Your task to perform on an android device: Clear all items from cart on walmart. Search for panasonic triple a on walmart, select the first entry, and add it to the cart. Image 0: 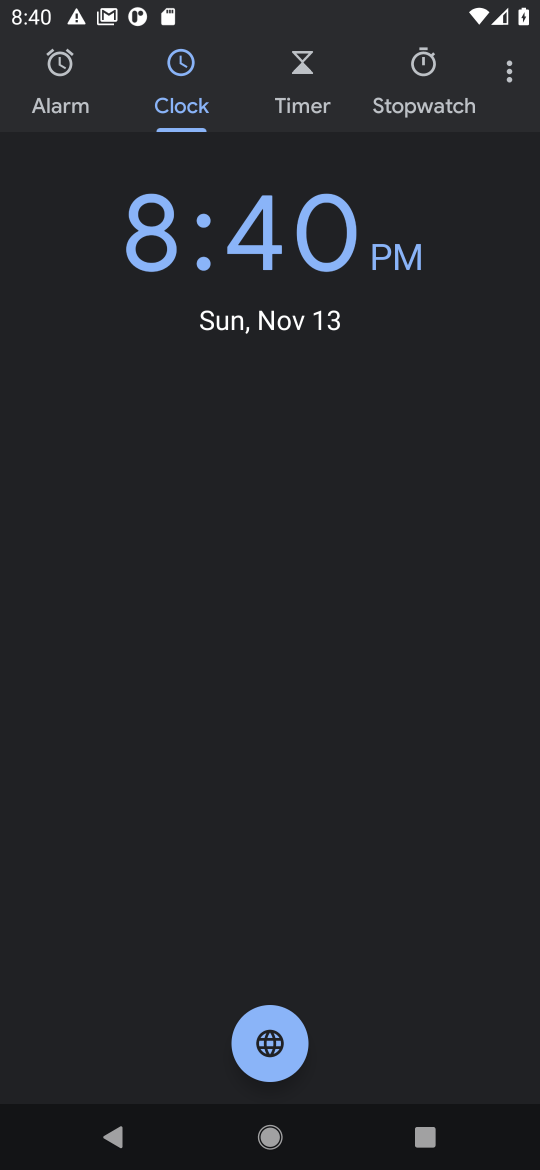
Step 0: press home button
Your task to perform on an android device: Clear all items from cart on walmart. Search for panasonic triple a on walmart, select the first entry, and add it to the cart. Image 1: 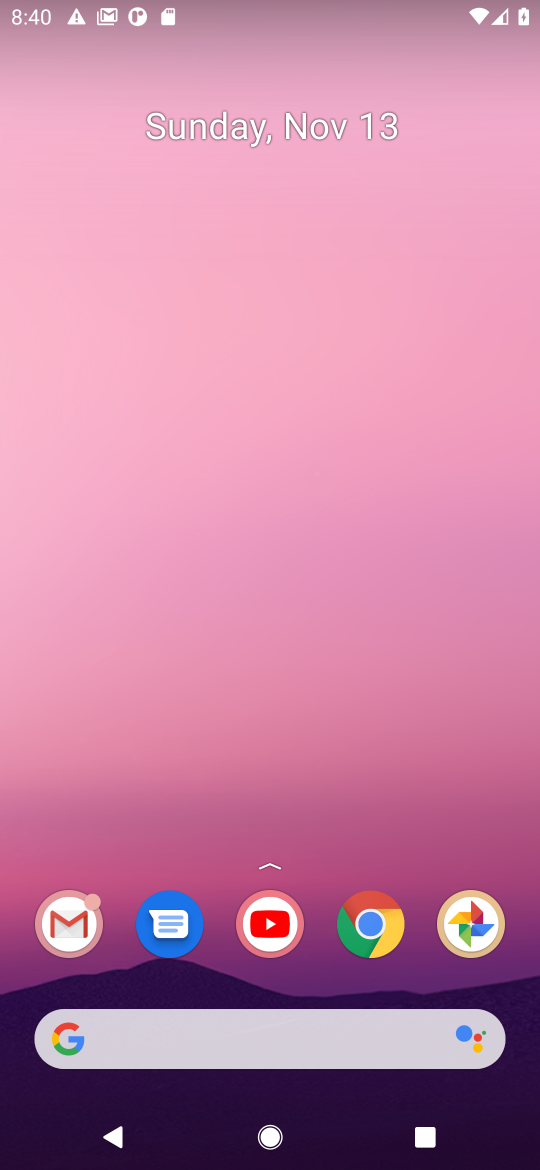
Step 1: click (369, 915)
Your task to perform on an android device: Clear all items from cart on walmart. Search for panasonic triple a on walmart, select the first entry, and add it to the cart. Image 2: 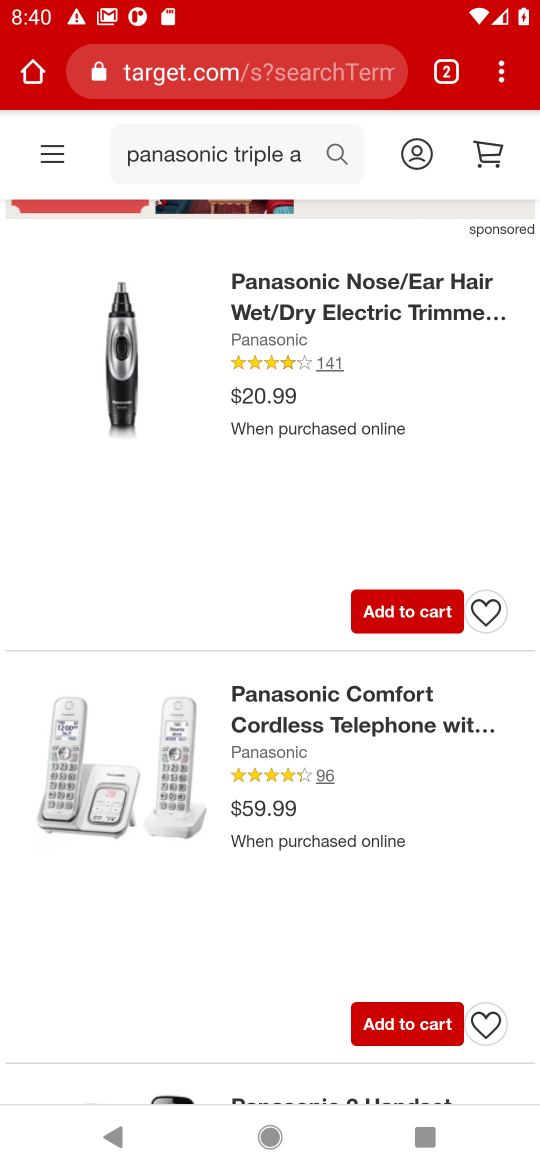
Step 2: click (287, 79)
Your task to perform on an android device: Clear all items from cart on walmart. Search for panasonic triple a on walmart, select the first entry, and add it to the cart. Image 3: 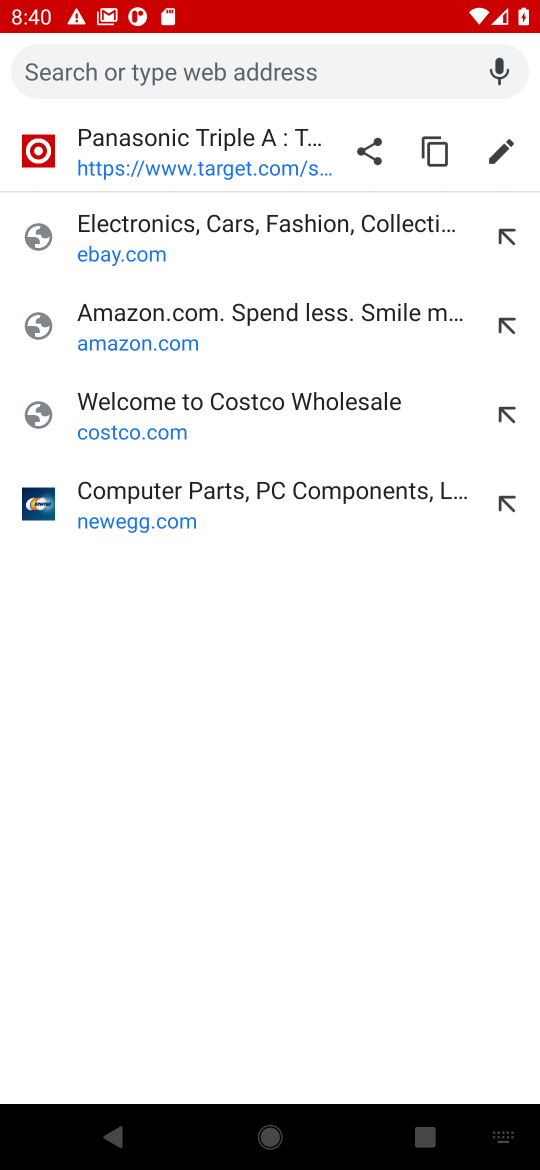
Step 3: type "walmart.com"
Your task to perform on an android device: Clear all items from cart on walmart. Search for panasonic triple a on walmart, select the first entry, and add it to the cart. Image 4: 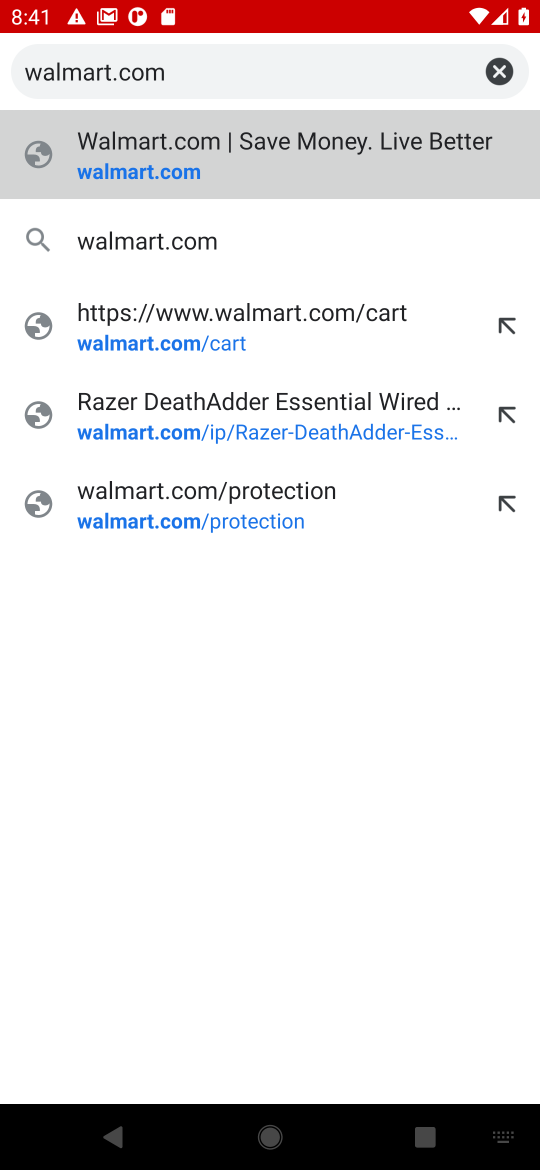
Step 4: click (120, 179)
Your task to perform on an android device: Clear all items from cart on walmart. Search for panasonic triple a on walmart, select the first entry, and add it to the cart. Image 5: 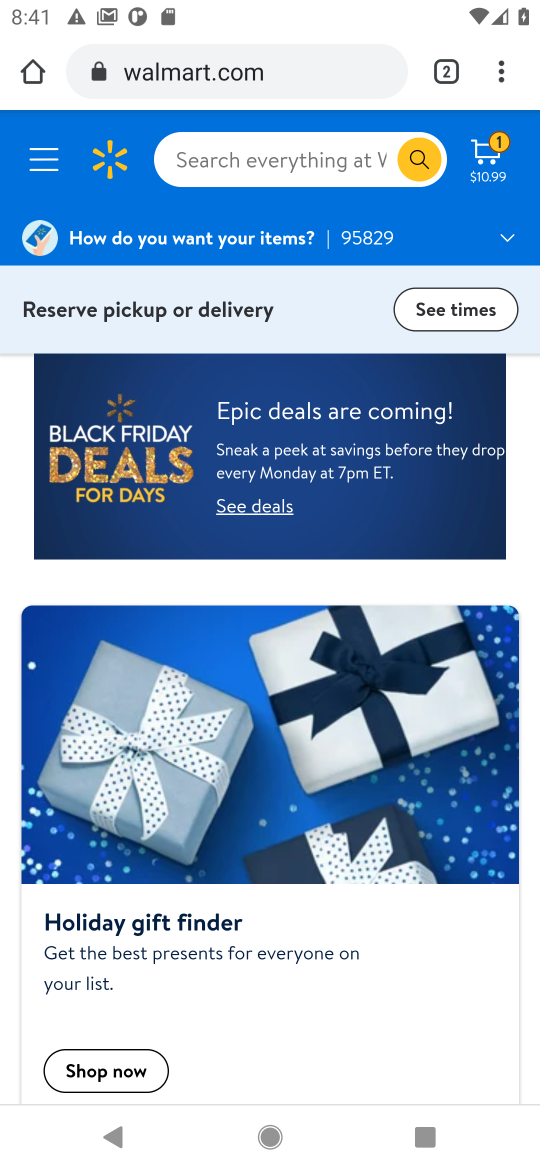
Step 5: click (484, 151)
Your task to perform on an android device: Clear all items from cart on walmart. Search for panasonic triple a on walmart, select the first entry, and add it to the cart. Image 6: 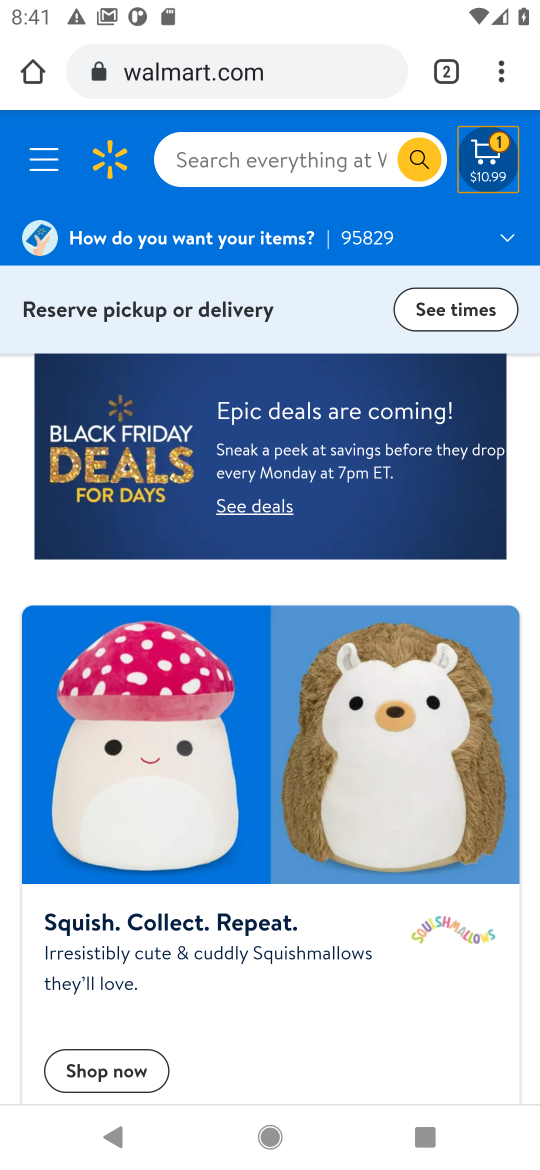
Step 6: click (492, 160)
Your task to perform on an android device: Clear all items from cart on walmart. Search for panasonic triple a on walmart, select the first entry, and add it to the cart. Image 7: 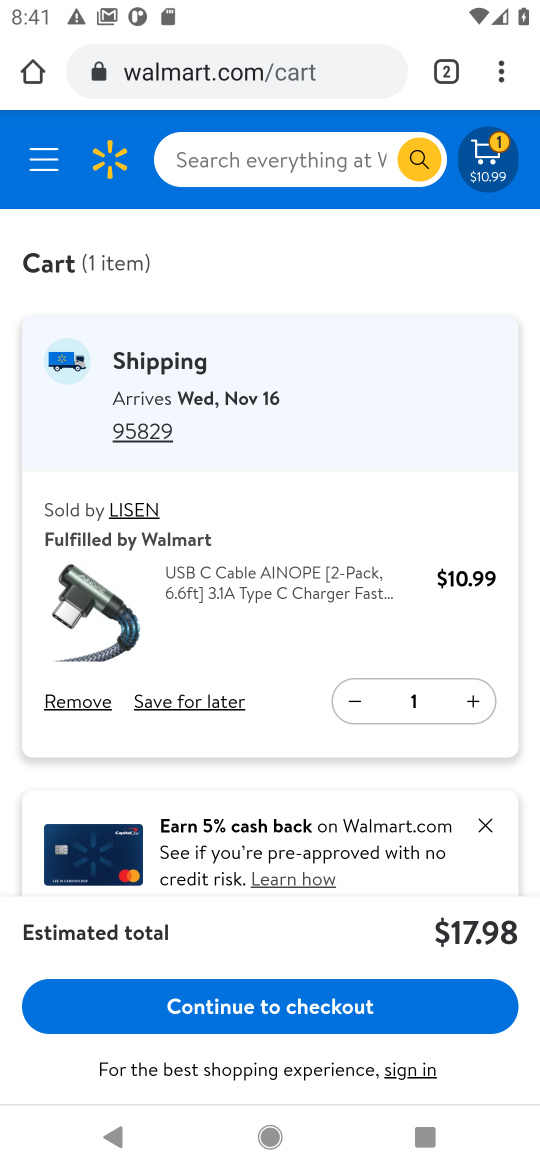
Step 7: click (75, 701)
Your task to perform on an android device: Clear all items from cart on walmart. Search for panasonic triple a on walmart, select the first entry, and add it to the cart. Image 8: 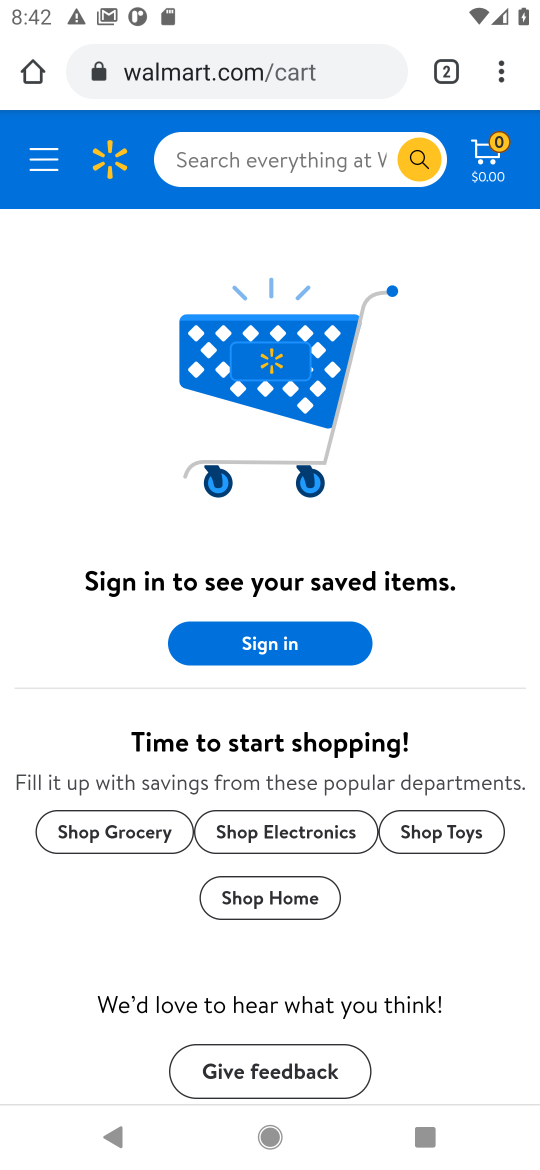
Step 8: click (246, 156)
Your task to perform on an android device: Clear all items from cart on walmart. Search for panasonic triple a on walmart, select the first entry, and add it to the cart. Image 9: 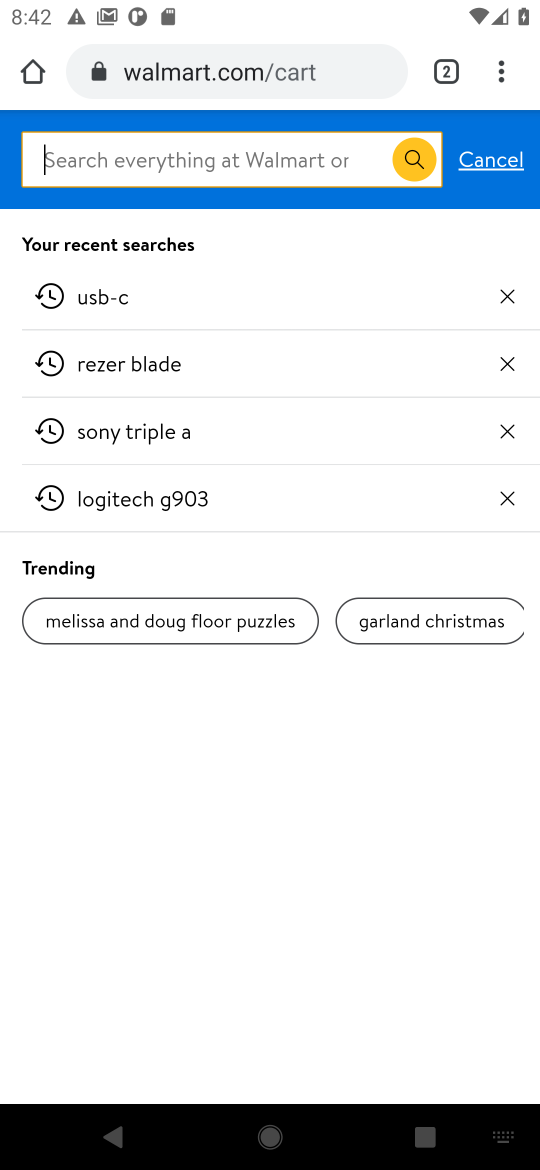
Step 9: type "panasonic triple a"
Your task to perform on an android device: Clear all items from cart on walmart. Search for panasonic triple a on walmart, select the first entry, and add it to the cart. Image 10: 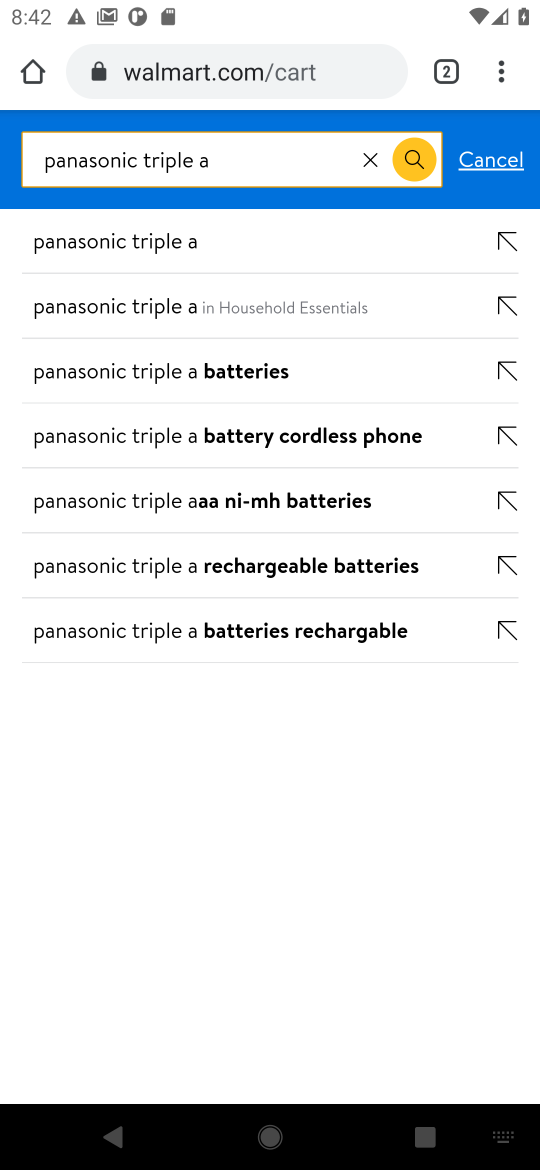
Step 10: click (58, 243)
Your task to perform on an android device: Clear all items from cart on walmart. Search for panasonic triple a on walmart, select the first entry, and add it to the cart. Image 11: 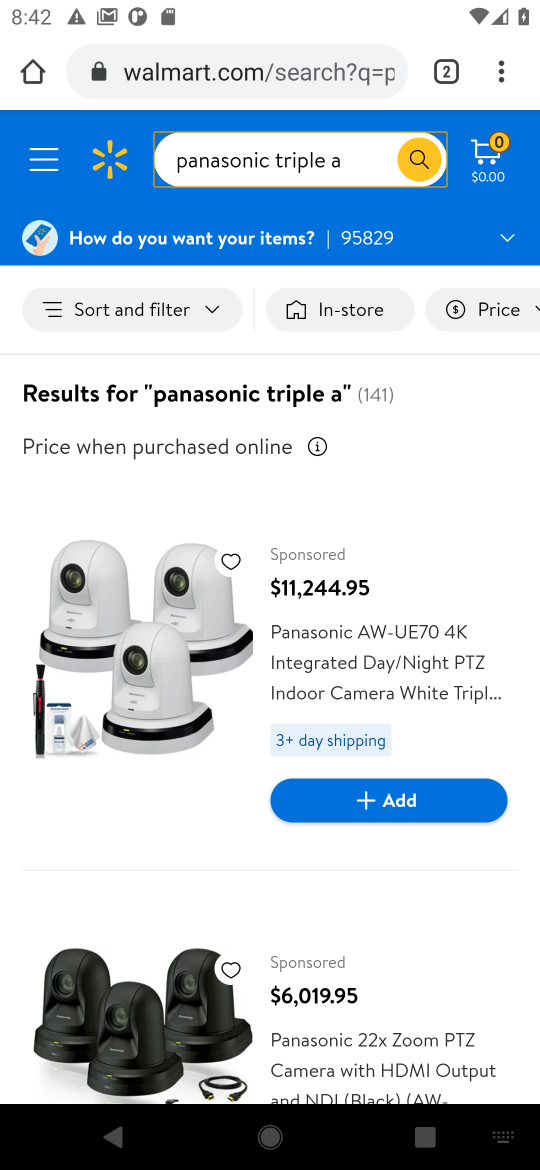
Step 11: task complete